Your task to perform on an android device: manage bookmarks in the chrome app Image 0: 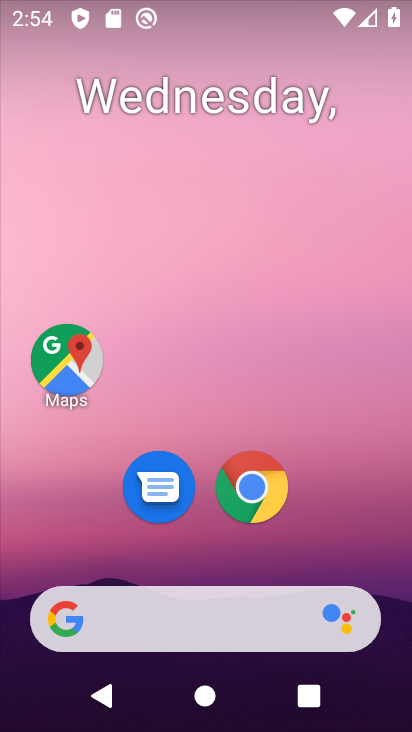
Step 0: drag from (379, 557) to (367, 140)
Your task to perform on an android device: manage bookmarks in the chrome app Image 1: 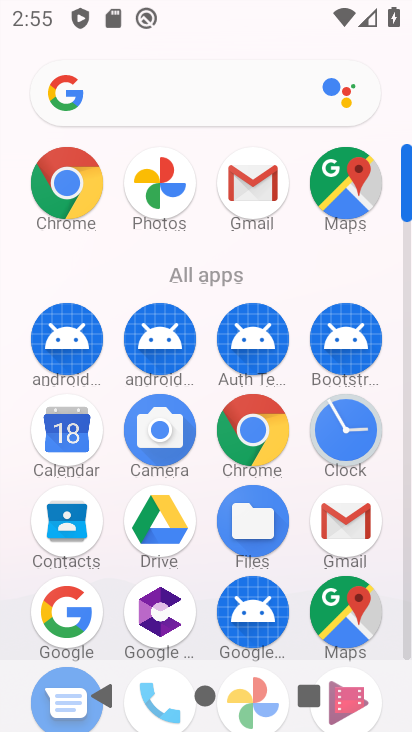
Step 1: drag from (300, 540) to (287, 308)
Your task to perform on an android device: manage bookmarks in the chrome app Image 2: 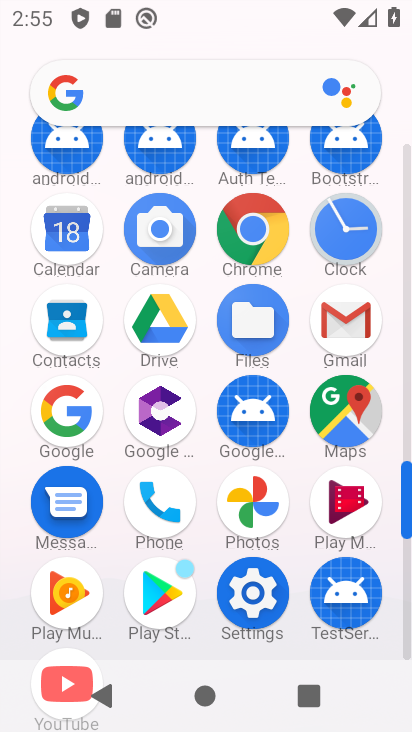
Step 2: click (278, 254)
Your task to perform on an android device: manage bookmarks in the chrome app Image 3: 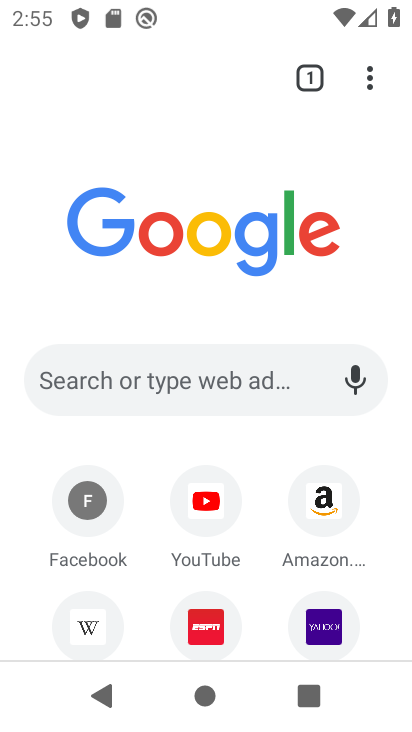
Step 3: click (368, 86)
Your task to perform on an android device: manage bookmarks in the chrome app Image 4: 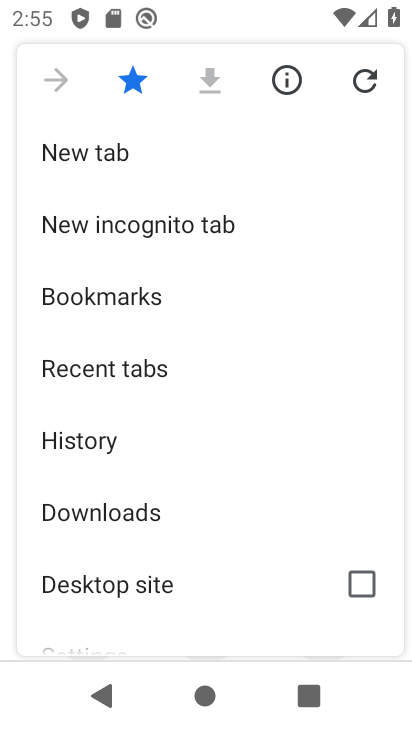
Step 4: drag from (291, 480) to (288, 339)
Your task to perform on an android device: manage bookmarks in the chrome app Image 5: 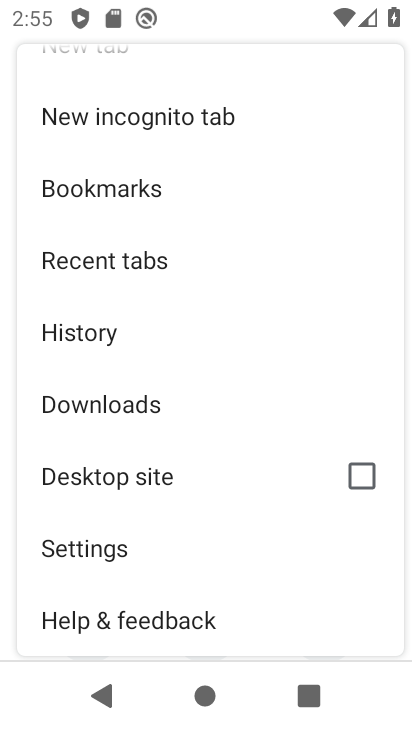
Step 5: drag from (285, 561) to (274, 330)
Your task to perform on an android device: manage bookmarks in the chrome app Image 6: 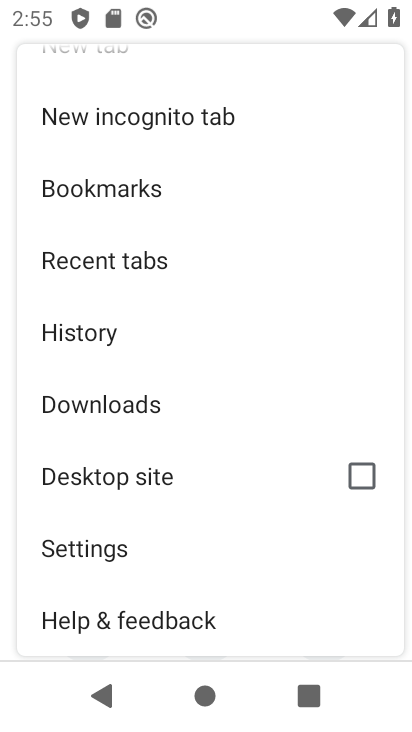
Step 6: drag from (261, 520) to (275, 425)
Your task to perform on an android device: manage bookmarks in the chrome app Image 7: 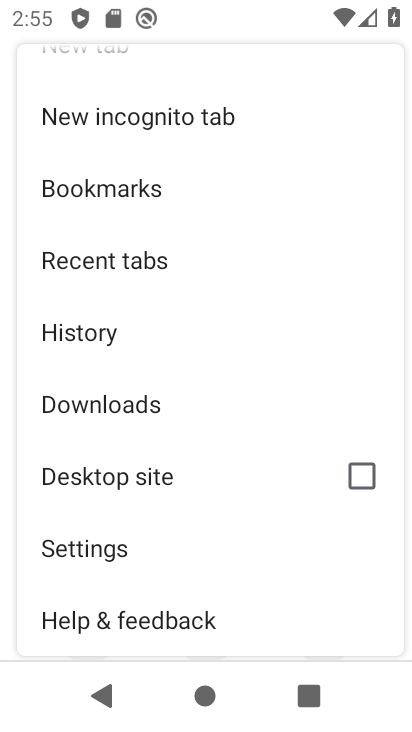
Step 7: drag from (267, 596) to (268, 418)
Your task to perform on an android device: manage bookmarks in the chrome app Image 8: 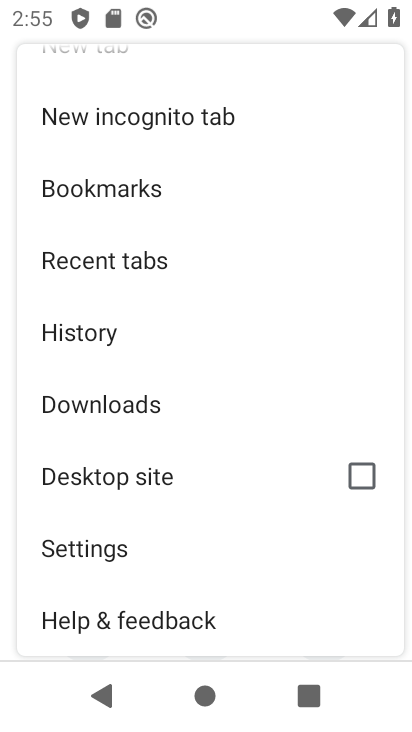
Step 8: drag from (258, 264) to (269, 454)
Your task to perform on an android device: manage bookmarks in the chrome app Image 9: 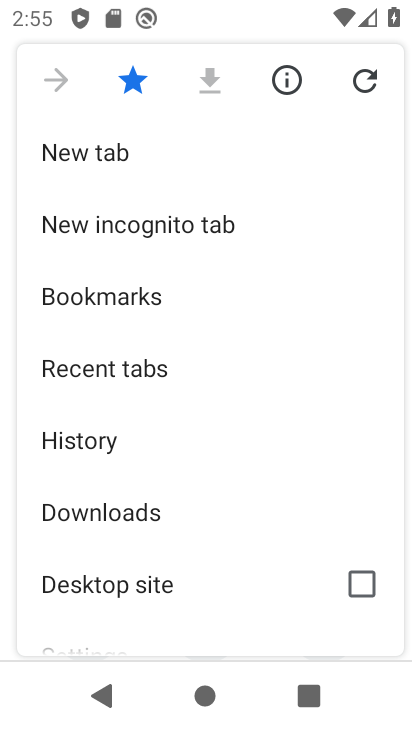
Step 9: click (147, 298)
Your task to perform on an android device: manage bookmarks in the chrome app Image 10: 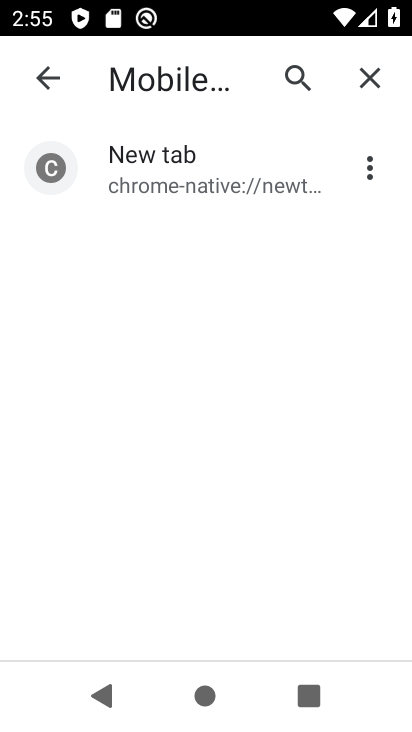
Step 10: click (374, 162)
Your task to perform on an android device: manage bookmarks in the chrome app Image 11: 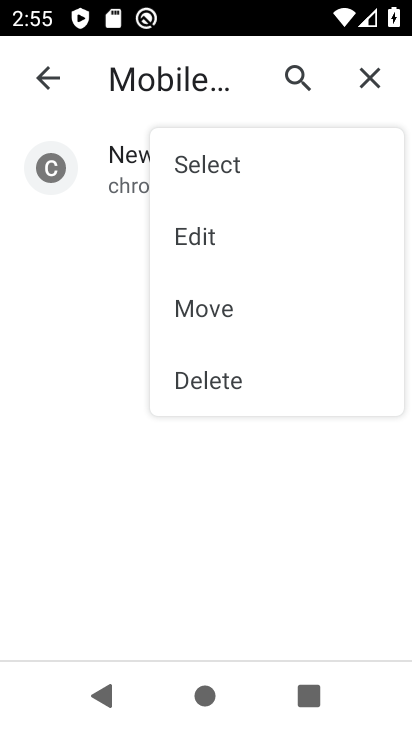
Step 11: click (193, 224)
Your task to perform on an android device: manage bookmarks in the chrome app Image 12: 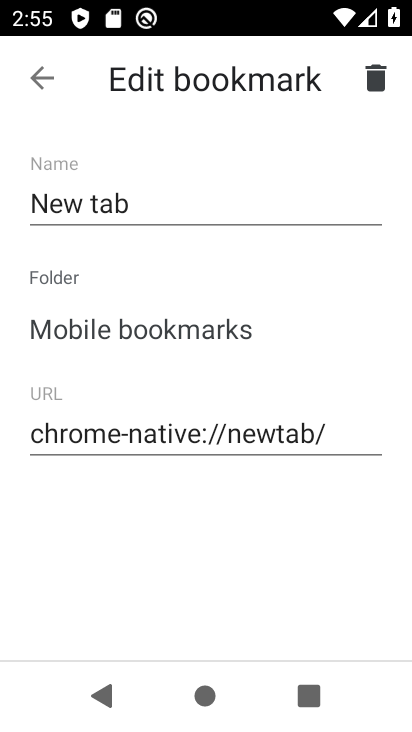
Step 12: click (187, 213)
Your task to perform on an android device: manage bookmarks in the chrome app Image 13: 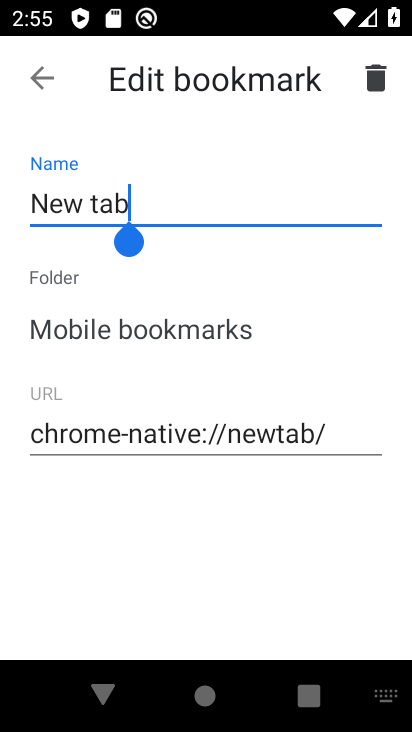
Step 13: type "bb"
Your task to perform on an android device: manage bookmarks in the chrome app Image 14: 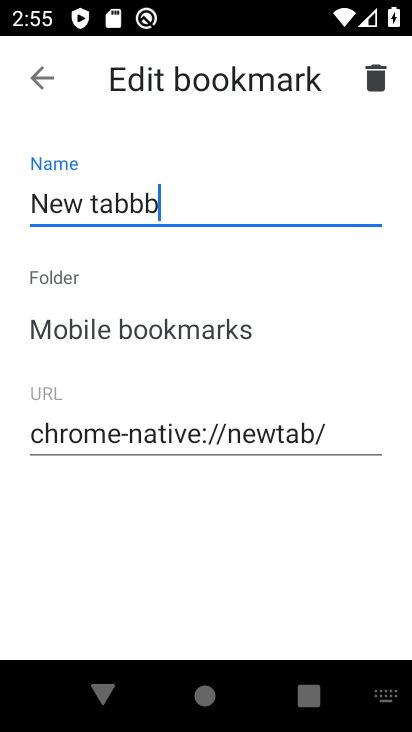
Step 14: click (41, 65)
Your task to perform on an android device: manage bookmarks in the chrome app Image 15: 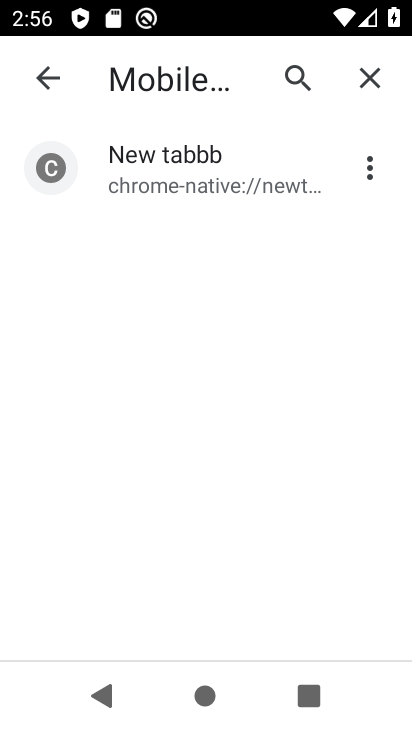
Step 15: task complete